Your task to perform on an android device: Open ESPN.com Image 0: 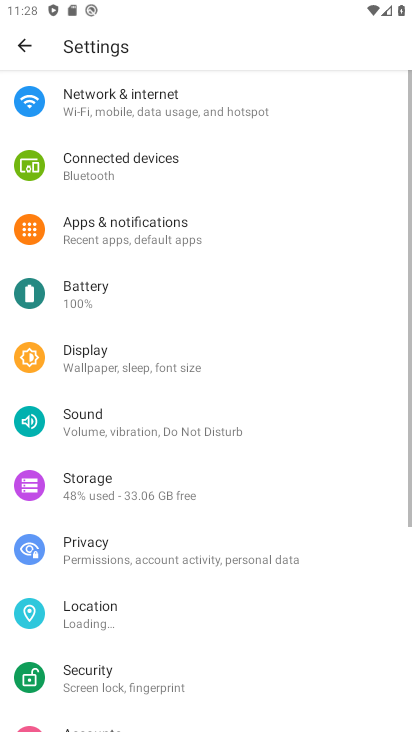
Step 0: press home button
Your task to perform on an android device: Open ESPN.com Image 1: 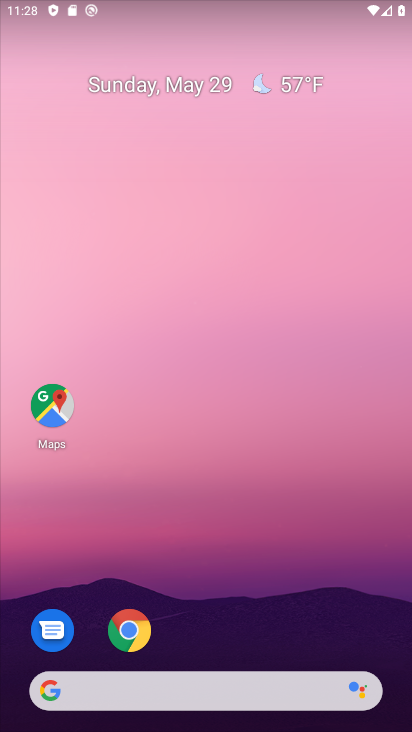
Step 1: drag from (222, 717) to (180, 98)
Your task to perform on an android device: Open ESPN.com Image 2: 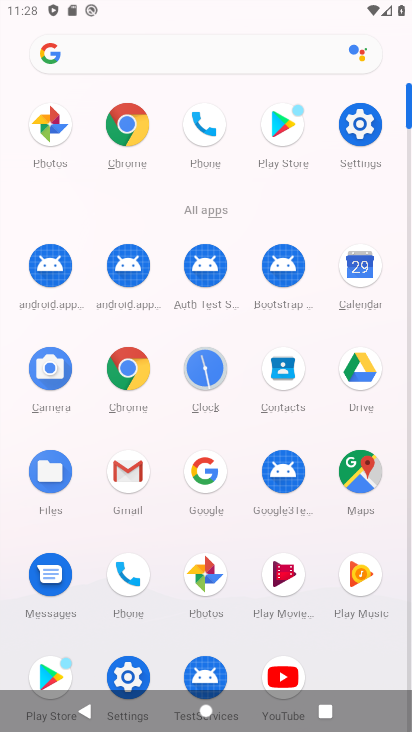
Step 2: click (110, 116)
Your task to perform on an android device: Open ESPN.com Image 3: 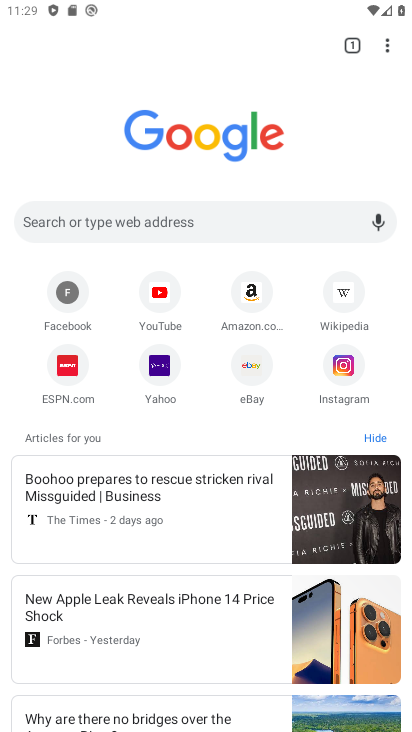
Step 3: click (76, 355)
Your task to perform on an android device: Open ESPN.com Image 4: 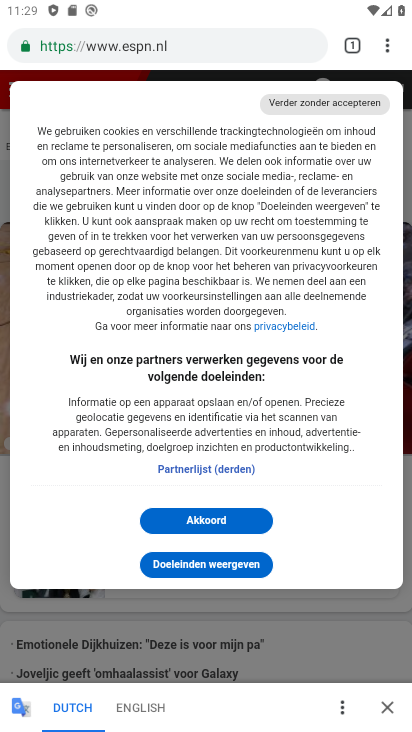
Step 4: click (389, 49)
Your task to perform on an android device: Open ESPN.com Image 5: 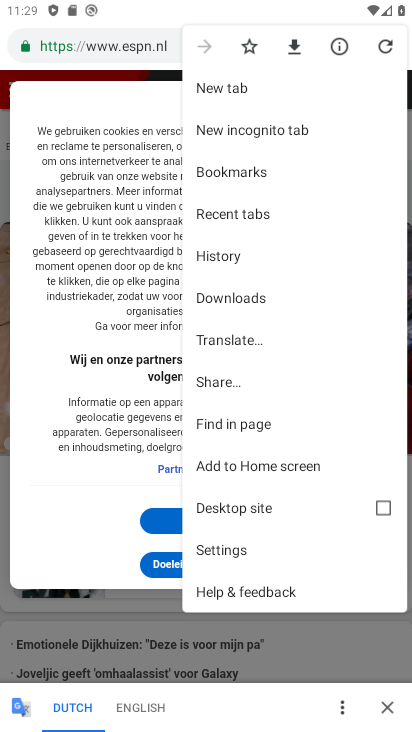
Step 5: click (108, 594)
Your task to perform on an android device: Open ESPN.com Image 6: 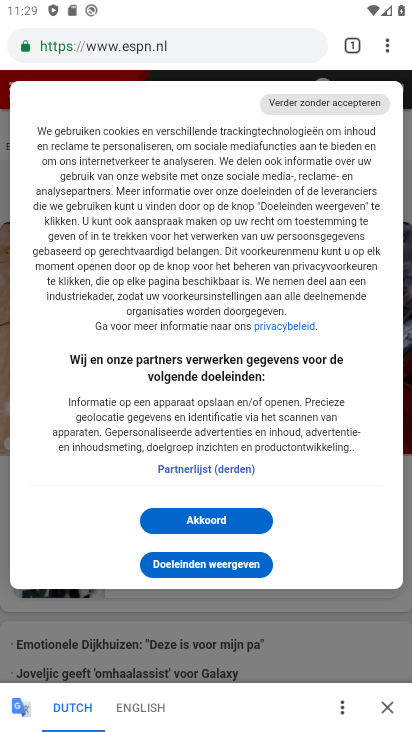
Step 6: click (183, 520)
Your task to perform on an android device: Open ESPN.com Image 7: 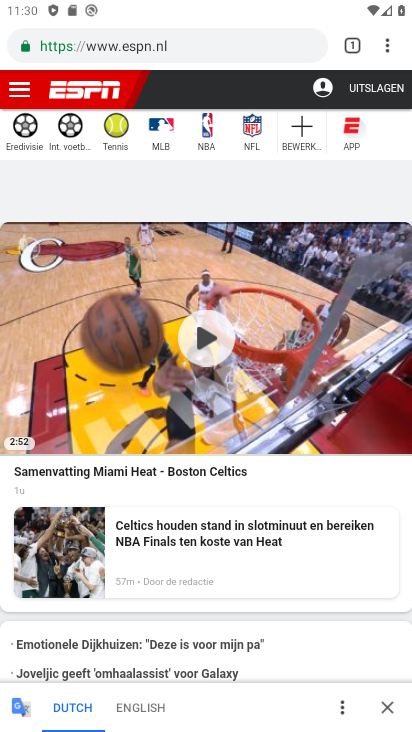
Step 7: task complete